Your task to perform on an android device: open chrome privacy settings Image 0: 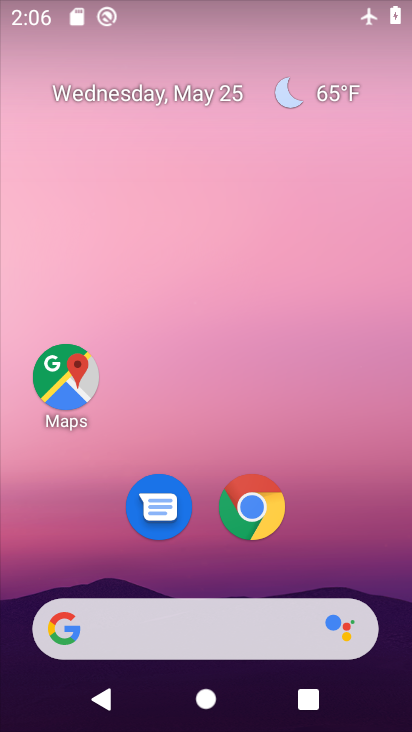
Step 0: click (251, 496)
Your task to perform on an android device: open chrome privacy settings Image 1: 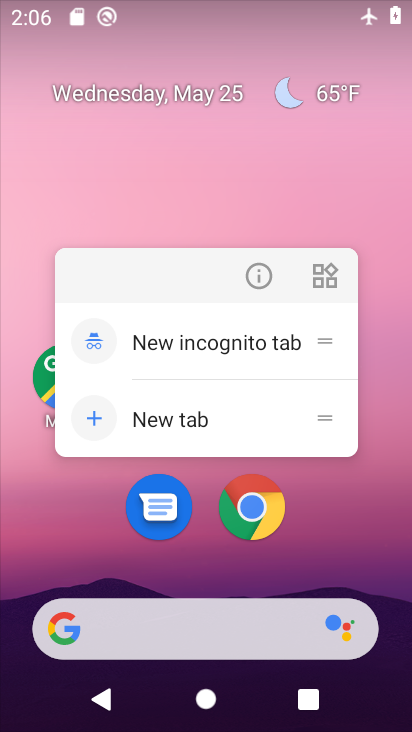
Step 1: click (253, 536)
Your task to perform on an android device: open chrome privacy settings Image 2: 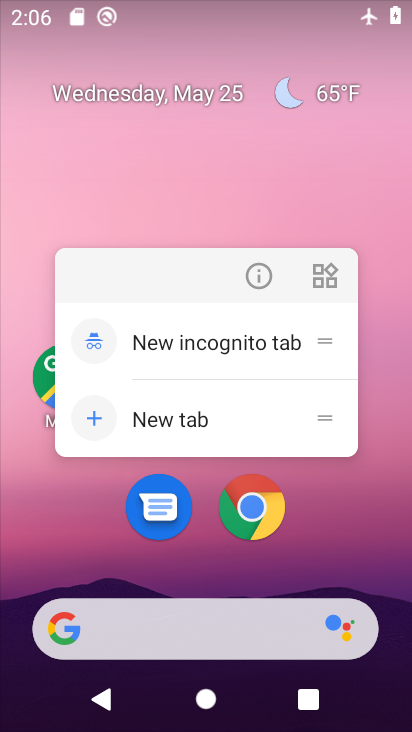
Step 2: click (251, 536)
Your task to perform on an android device: open chrome privacy settings Image 3: 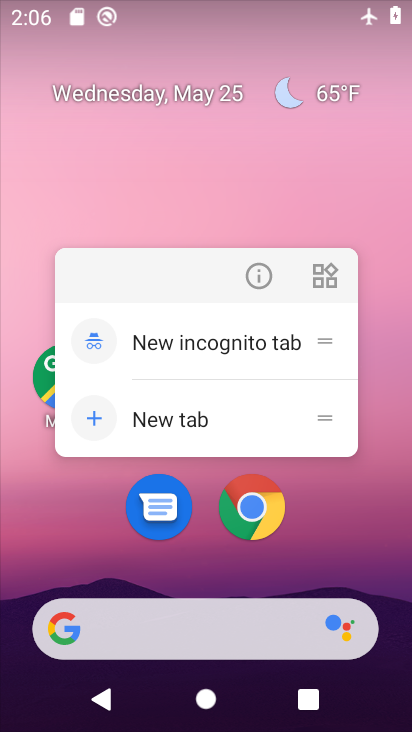
Step 3: click (255, 502)
Your task to perform on an android device: open chrome privacy settings Image 4: 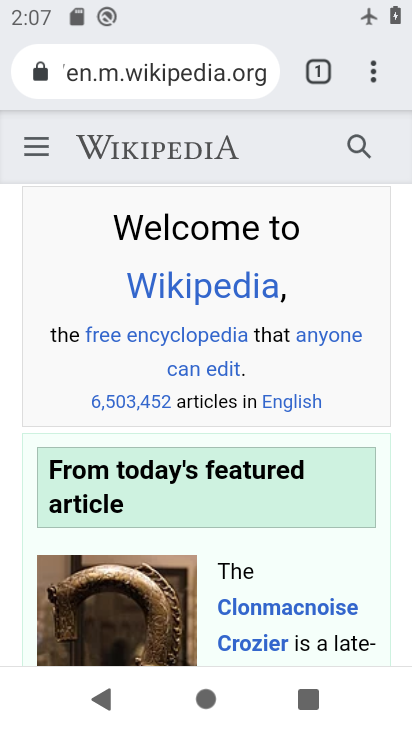
Step 4: drag from (375, 58) to (243, 525)
Your task to perform on an android device: open chrome privacy settings Image 5: 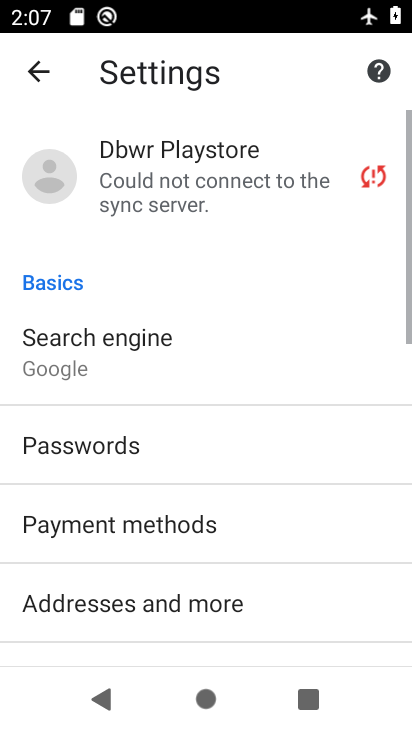
Step 5: drag from (169, 650) to (245, 271)
Your task to perform on an android device: open chrome privacy settings Image 6: 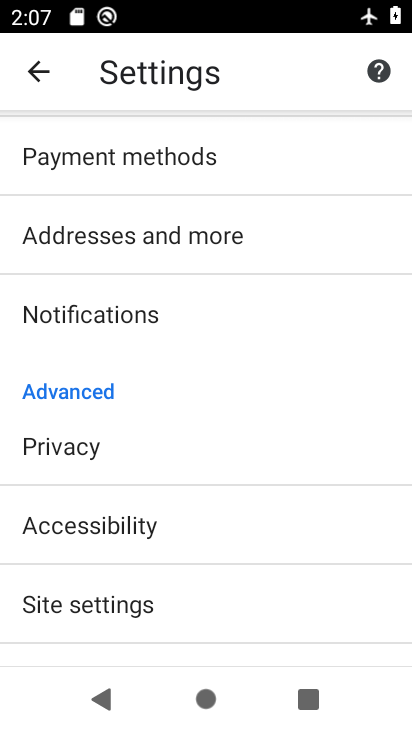
Step 6: click (123, 449)
Your task to perform on an android device: open chrome privacy settings Image 7: 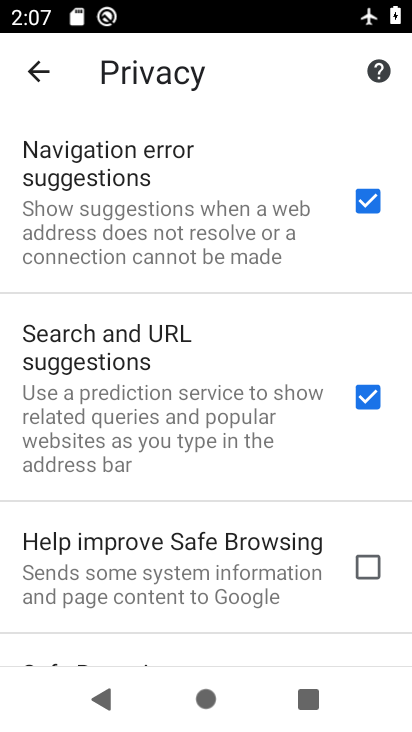
Step 7: task complete